Your task to perform on an android device: What's on my calendar tomorrow? Image 0: 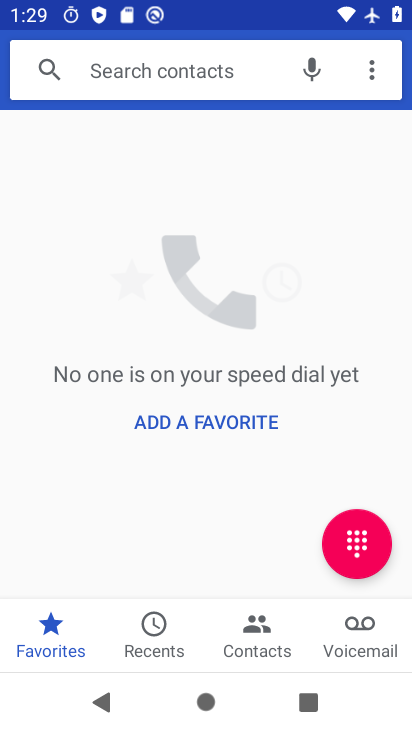
Step 0: press home button
Your task to perform on an android device: What's on my calendar tomorrow? Image 1: 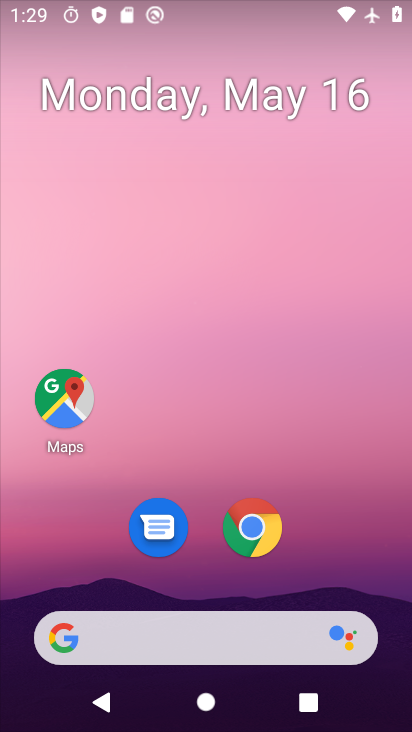
Step 1: drag from (135, 590) to (324, 146)
Your task to perform on an android device: What's on my calendar tomorrow? Image 2: 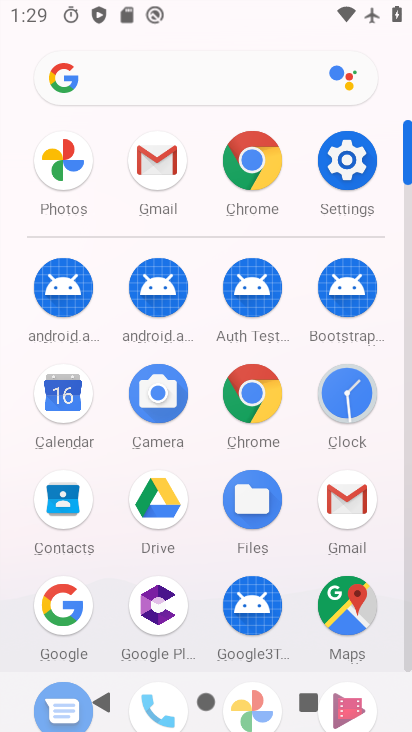
Step 2: click (67, 408)
Your task to perform on an android device: What's on my calendar tomorrow? Image 3: 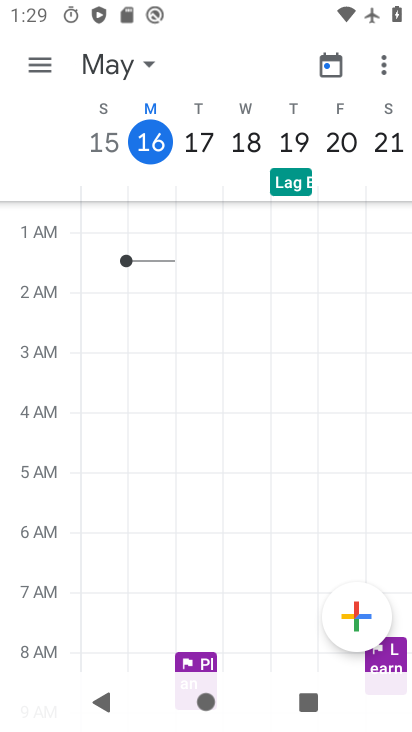
Step 3: click (108, 72)
Your task to perform on an android device: What's on my calendar tomorrow? Image 4: 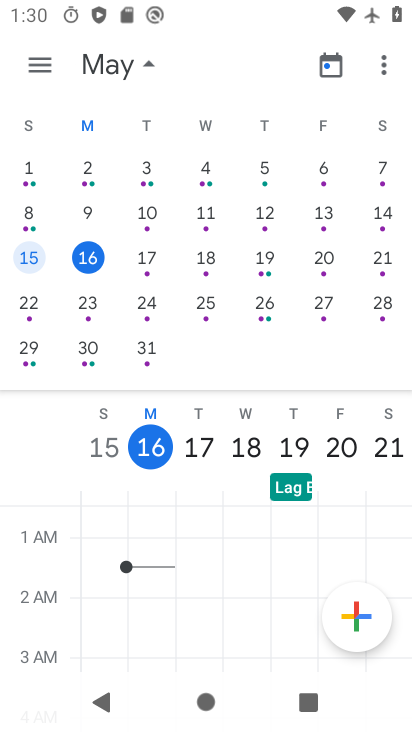
Step 4: click (151, 253)
Your task to perform on an android device: What's on my calendar tomorrow? Image 5: 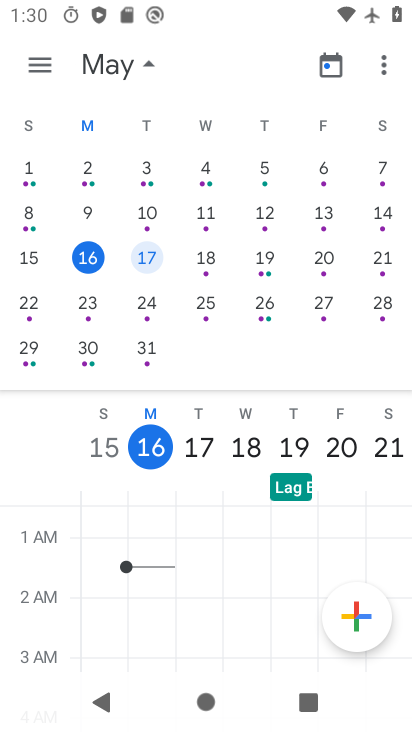
Step 5: click (34, 70)
Your task to perform on an android device: What's on my calendar tomorrow? Image 6: 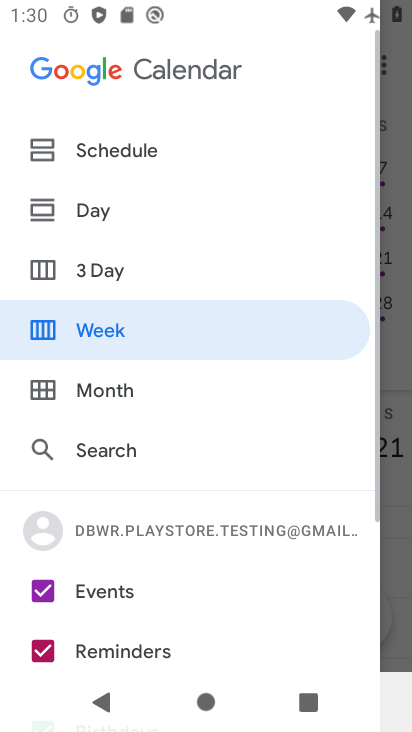
Step 6: click (150, 152)
Your task to perform on an android device: What's on my calendar tomorrow? Image 7: 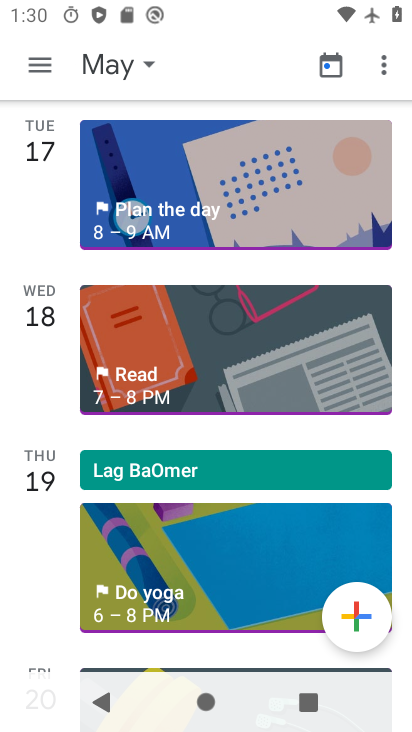
Step 7: click (203, 179)
Your task to perform on an android device: What's on my calendar tomorrow? Image 8: 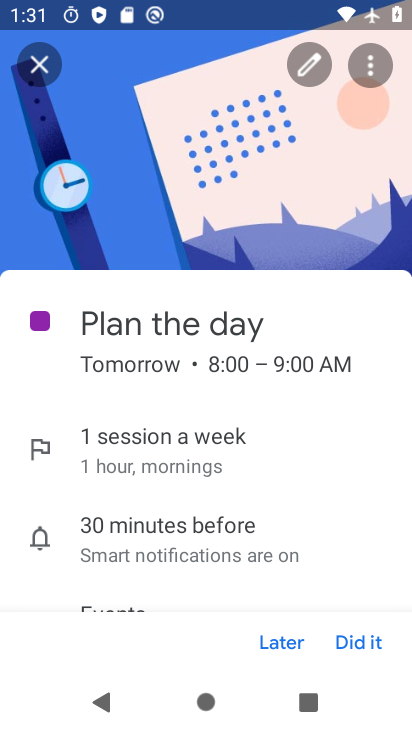
Step 8: task complete